Your task to perform on an android device: add a contact in the contacts app Image 0: 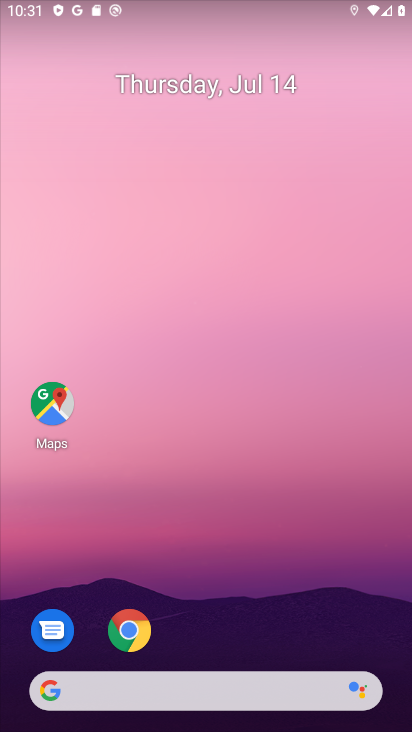
Step 0: drag from (215, 641) to (275, 173)
Your task to perform on an android device: add a contact in the contacts app Image 1: 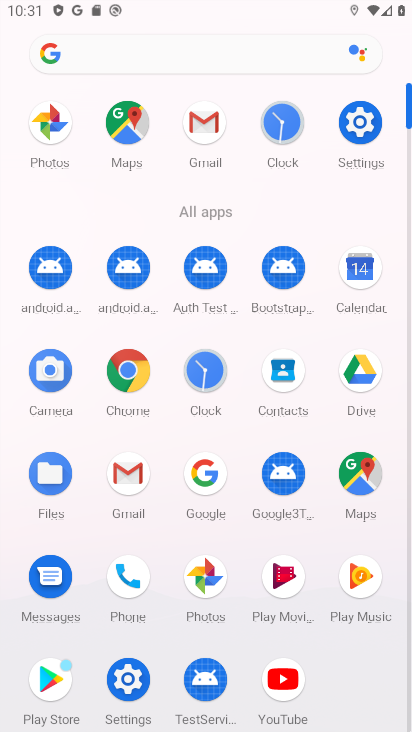
Step 1: click (288, 389)
Your task to perform on an android device: add a contact in the contacts app Image 2: 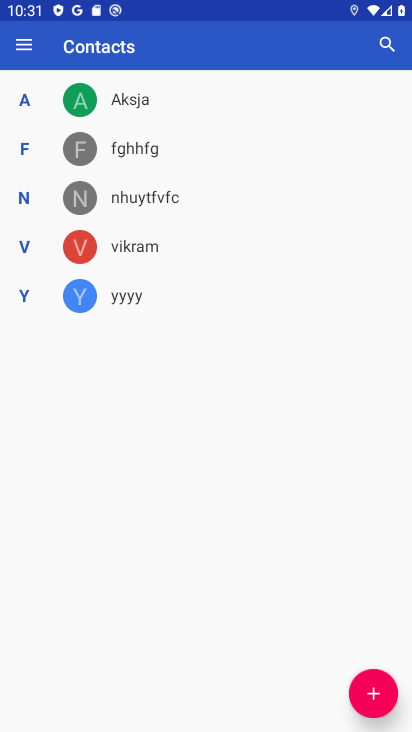
Step 2: click (378, 684)
Your task to perform on an android device: add a contact in the contacts app Image 3: 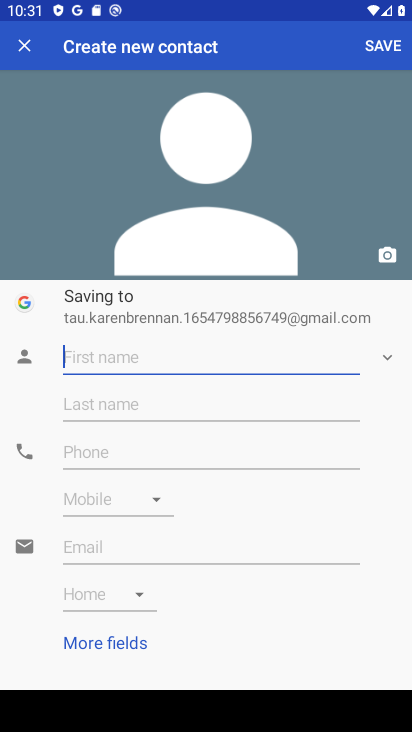
Step 3: type "ED"
Your task to perform on an android device: add a contact in the contacts app Image 4: 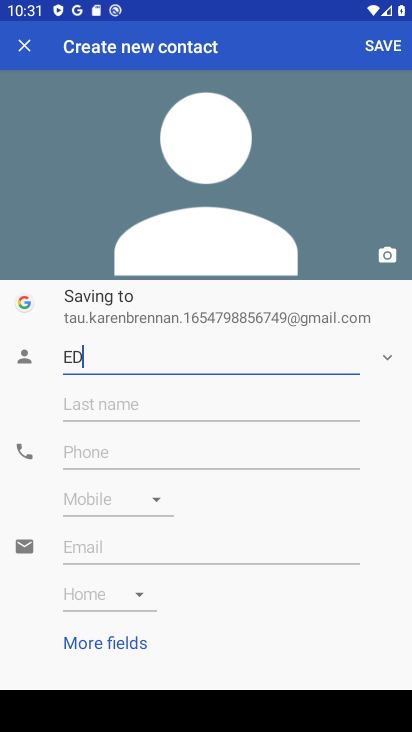
Step 4: click (106, 448)
Your task to perform on an android device: add a contact in the contacts app Image 5: 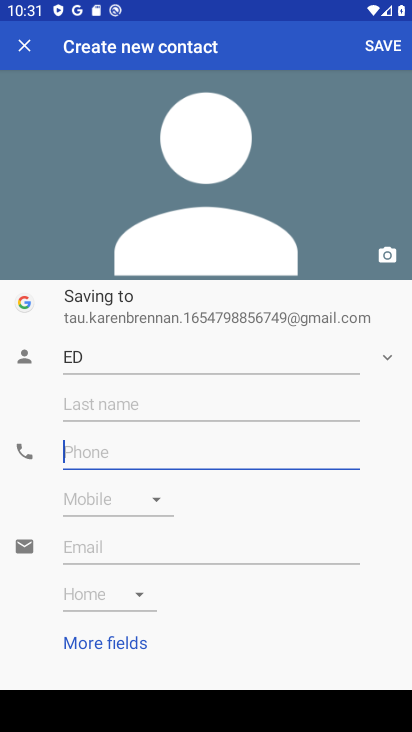
Step 5: type "89989989"
Your task to perform on an android device: add a contact in the contacts app Image 6: 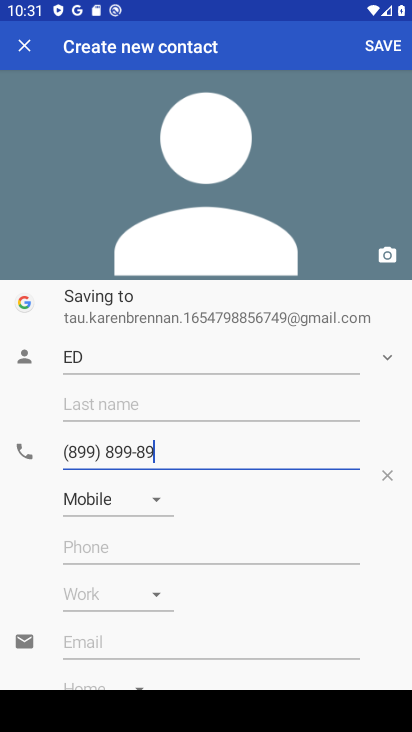
Step 6: type "99"
Your task to perform on an android device: add a contact in the contacts app Image 7: 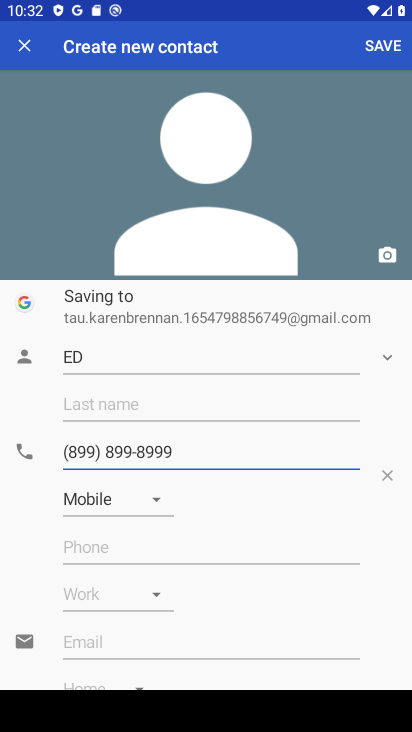
Step 7: click (390, 19)
Your task to perform on an android device: add a contact in the contacts app Image 8: 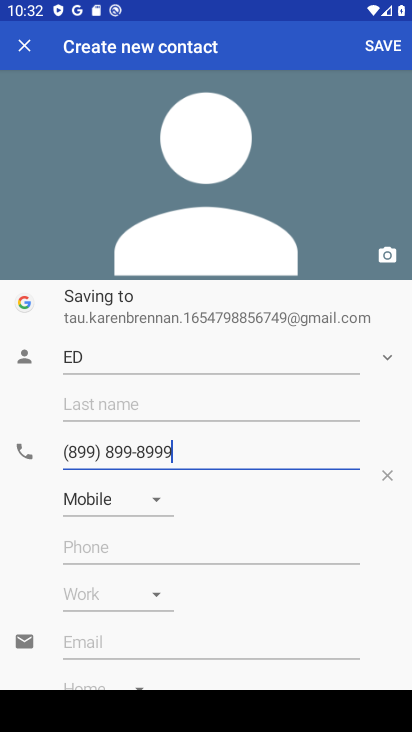
Step 8: click (386, 43)
Your task to perform on an android device: add a contact in the contacts app Image 9: 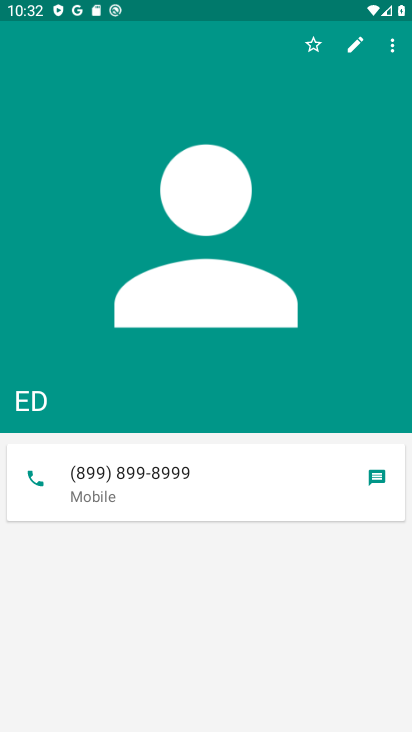
Step 9: task complete